Your task to perform on an android device: turn off javascript in the chrome app Image 0: 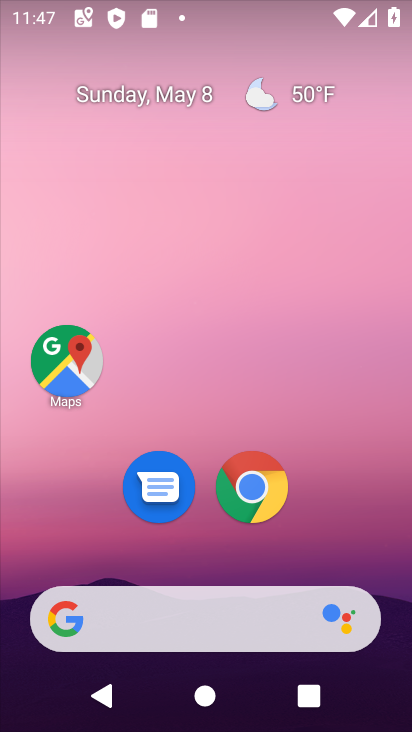
Step 0: click (245, 497)
Your task to perform on an android device: turn off javascript in the chrome app Image 1: 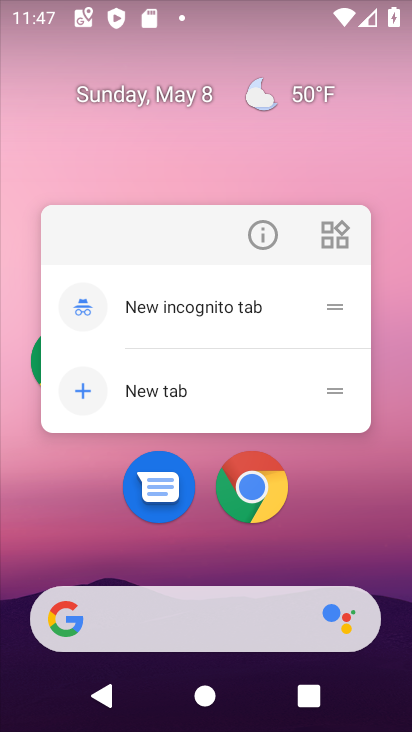
Step 1: click (265, 502)
Your task to perform on an android device: turn off javascript in the chrome app Image 2: 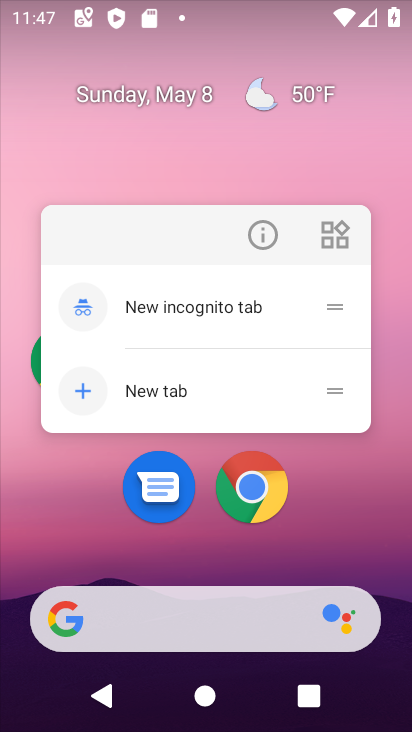
Step 2: click (265, 502)
Your task to perform on an android device: turn off javascript in the chrome app Image 3: 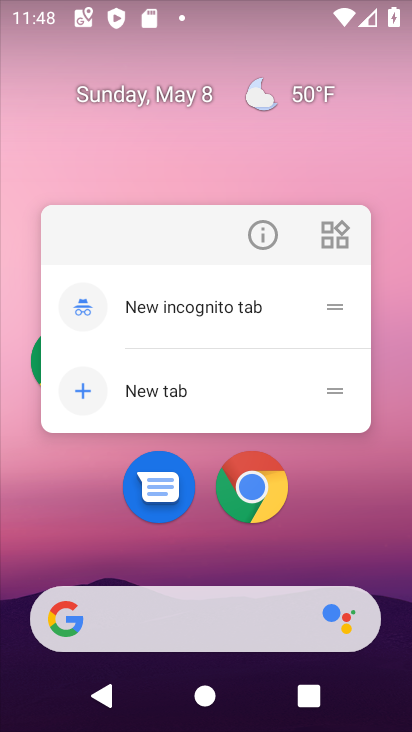
Step 3: click (278, 495)
Your task to perform on an android device: turn off javascript in the chrome app Image 4: 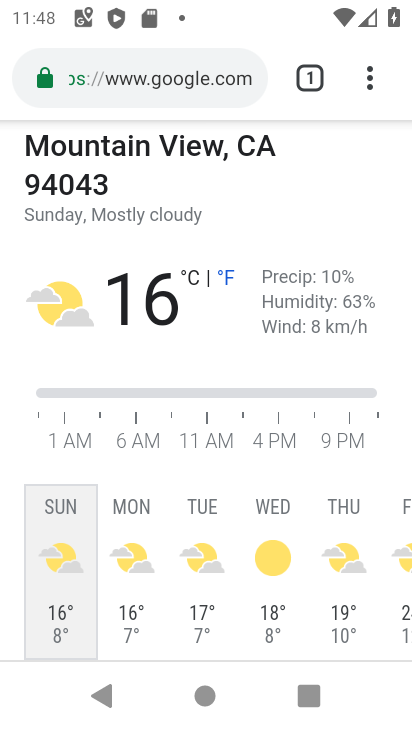
Step 4: drag from (377, 81) to (126, 537)
Your task to perform on an android device: turn off javascript in the chrome app Image 5: 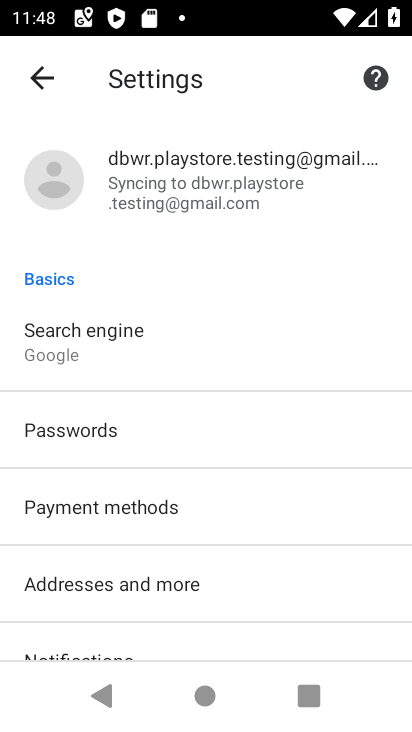
Step 5: drag from (173, 614) to (155, 306)
Your task to perform on an android device: turn off javascript in the chrome app Image 6: 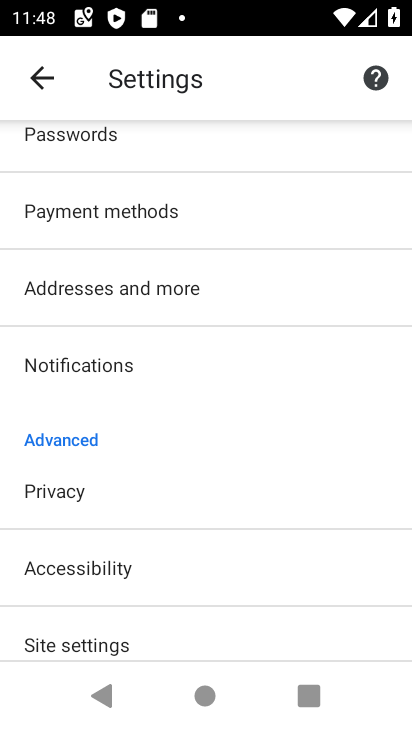
Step 6: click (95, 642)
Your task to perform on an android device: turn off javascript in the chrome app Image 7: 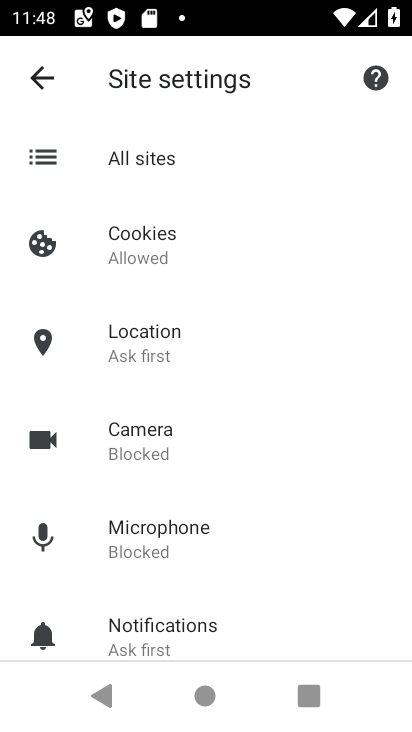
Step 7: drag from (121, 426) to (2, 198)
Your task to perform on an android device: turn off javascript in the chrome app Image 8: 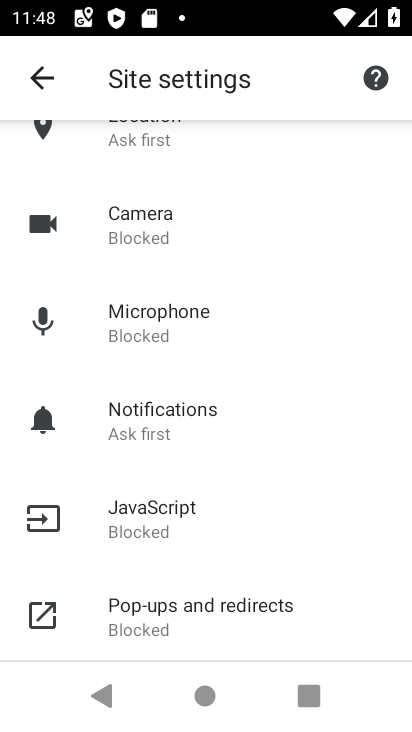
Step 8: click (181, 528)
Your task to perform on an android device: turn off javascript in the chrome app Image 9: 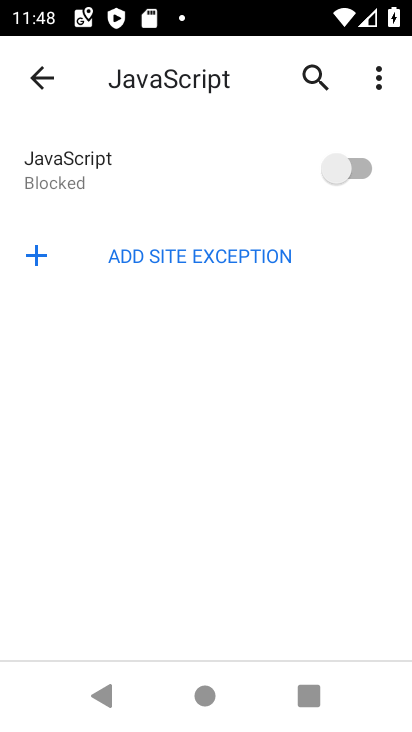
Step 9: task complete